Your task to perform on an android device: Search for Italian restaurants on Maps Image 0: 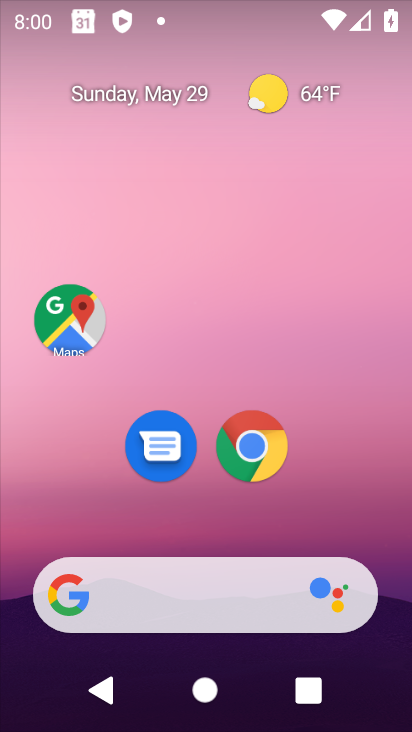
Step 0: drag from (191, 518) to (267, 147)
Your task to perform on an android device: Search for Italian restaurants on Maps Image 1: 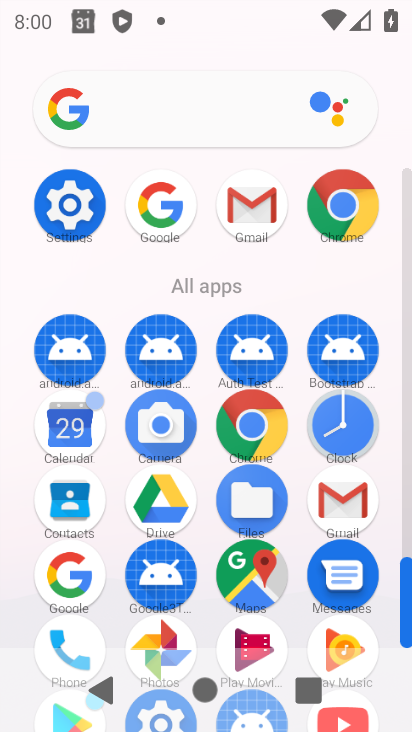
Step 1: click (232, 579)
Your task to perform on an android device: Search for Italian restaurants on Maps Image 2: 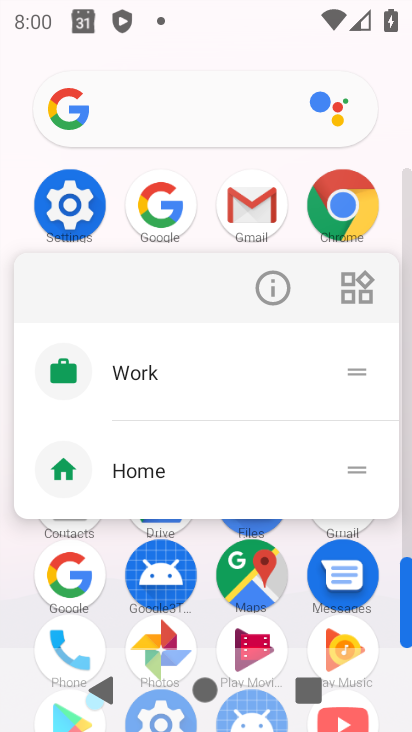
Step 2: click (261, 285)
Your task to perform on an android device: Search for Italian restaurants on Maps Image 3: 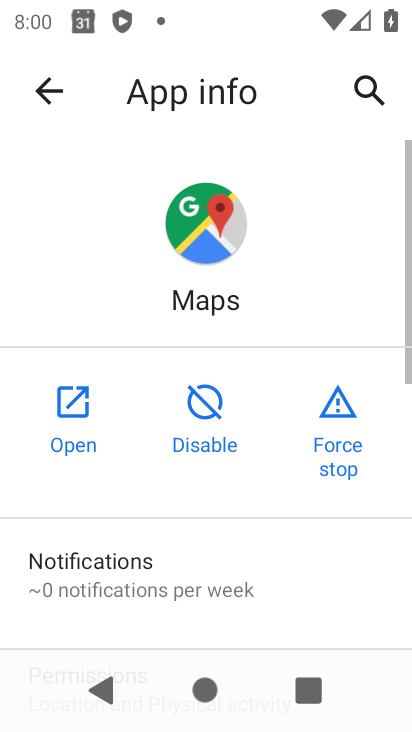
Step 3: click (57, 395)
Your task to perform on an android device: Search for Italian restaurants on Maps Image 4: 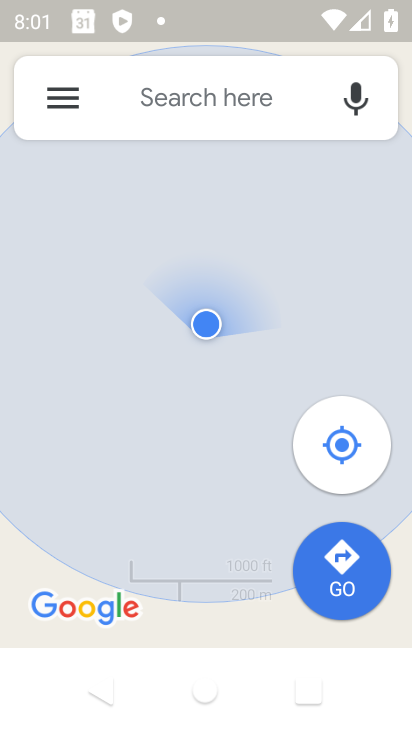
Step 4: click (215, 94)
Your task to perform on an android device: Search for Italian restaurants on Maps Image 5: 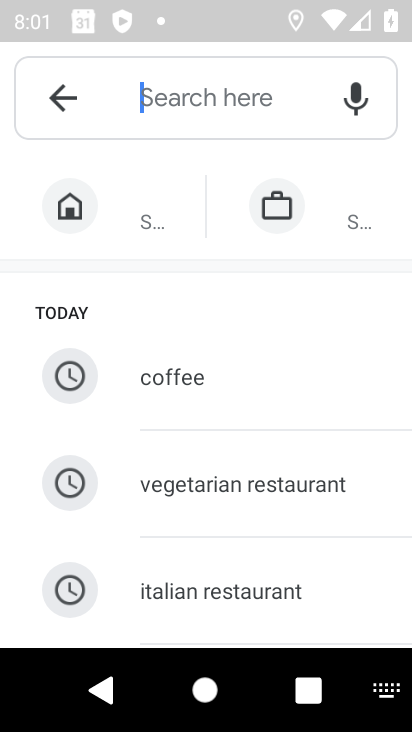
Step 5: click (226, 590)
Your task to perform on an android device: Search for Italian restaurants on Maps Image 6: 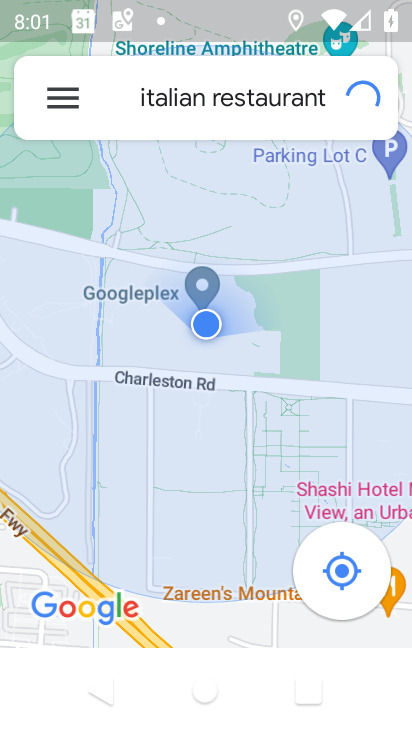
Step 6: task complete